Your task to perform on an android device: see tabs open on other devices in the chrome app Image 0: 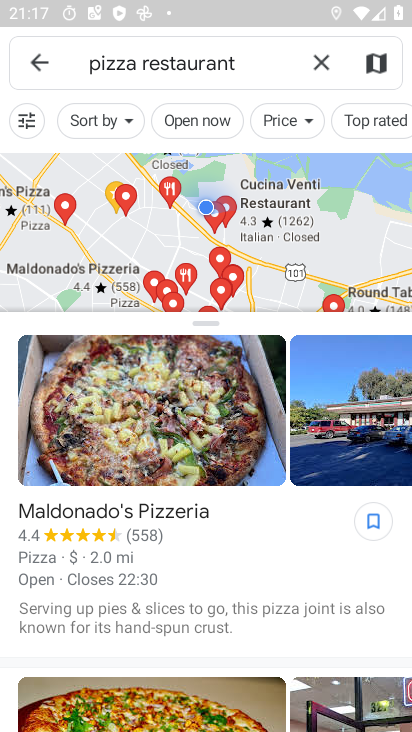
Step 0: press home button
Your task to perform on an android device: see tabs open on other devices in the chrome app Image 1: 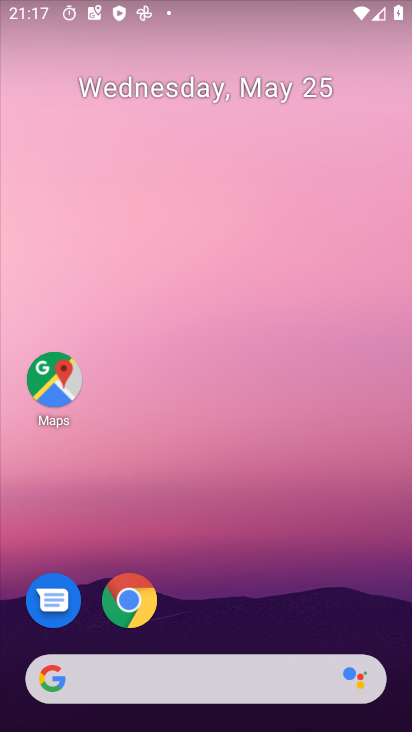
Step 1: drag from (368, 599) to (304, 66)
Your task to perform on an android device: see tabs open on other devices in the chrome app Image 2: 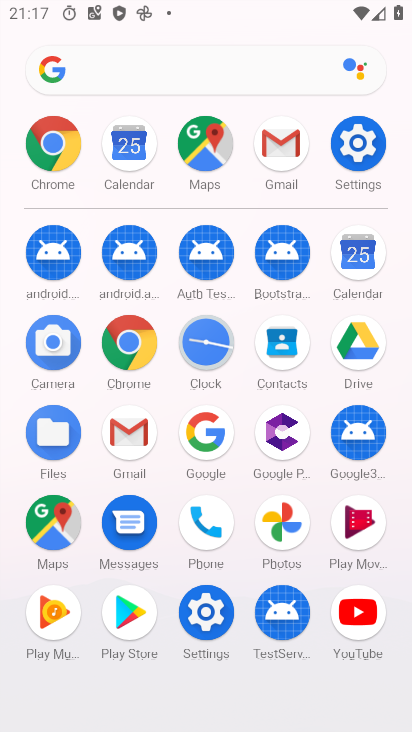
Step 2: click (133, 369)
Your task to perform on an android device: see tabs open on other devices in the chrome app Image 3: 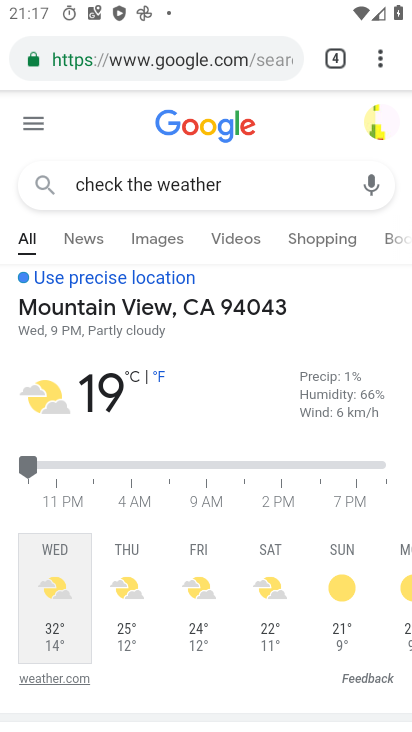
Step 3: click (337, 66)
Your task to perform on an android device: see tabs open on other devices in the chrome app Image 4: 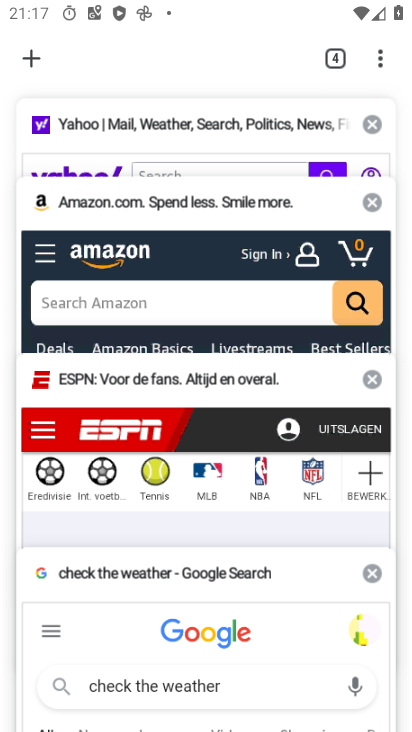
Step 4: task complete